Your task to perform on an android device: Go to Yahoo.com Image 0: 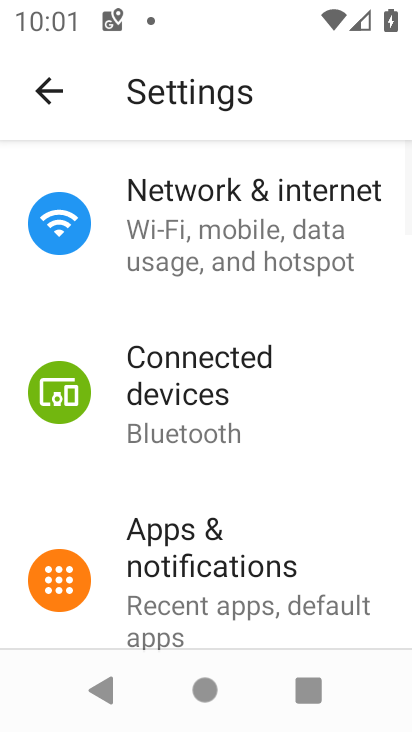
Step 0: press home button
Your task to perform on an android device: Go to Yahoo.com Image 1: 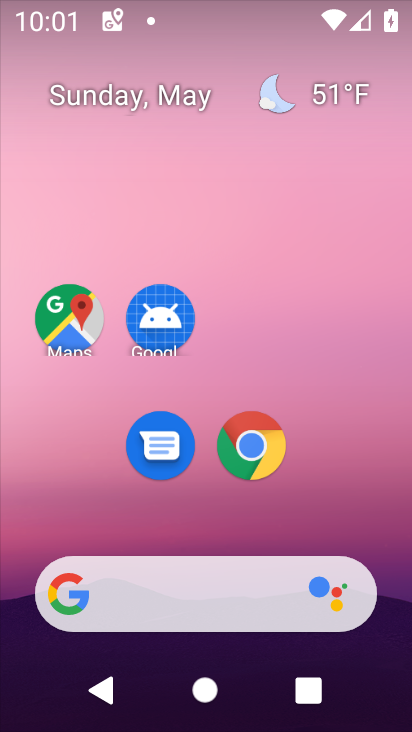
Step 1: click (254, 448)
Your task to perform on an android device: Go to Yahoo.com Image 2: 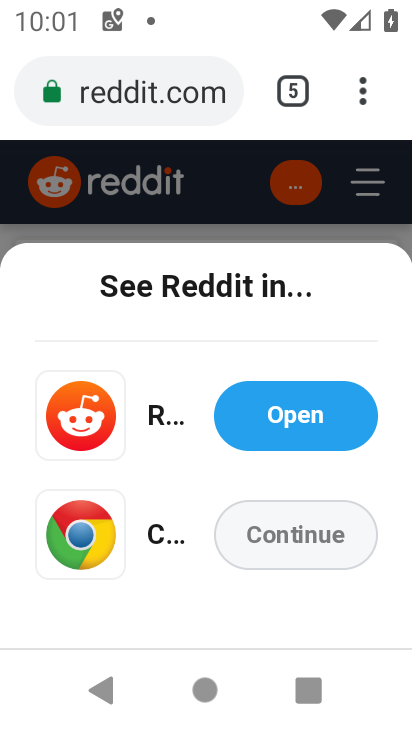
Step 2: click (365, 95)
Your task to perform on an android device: Go to Yahoo.com Image 3: 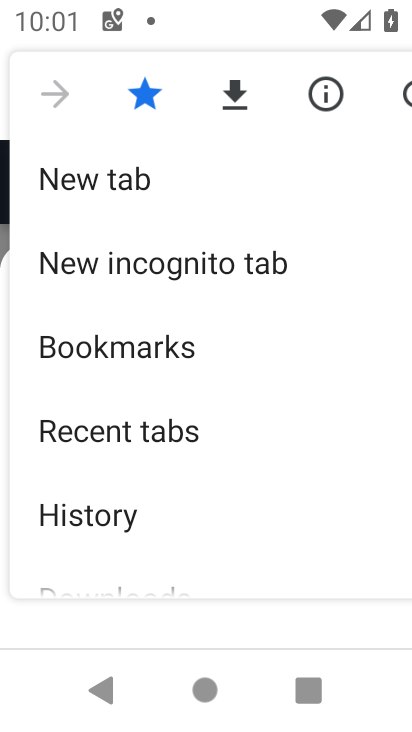
Step 3: click (96, 178)
Your task to perform on an android device: Go to Yahoo.com Image 4: 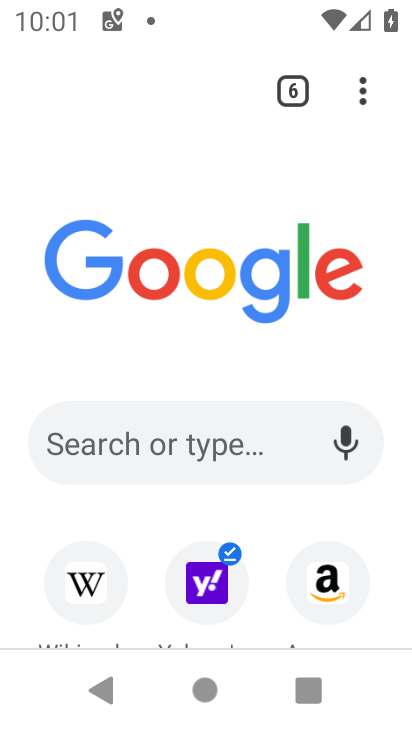
Step 4: click (216, 582)
Your task to perform on an android device: Go to Yahoo.com Image 5: 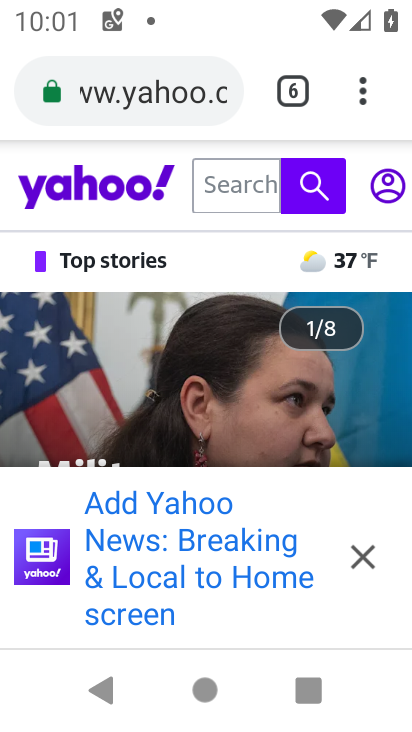
Step 5: task complete